Your task to perform on an android device: turn off javascript in the chrome app Image 0: 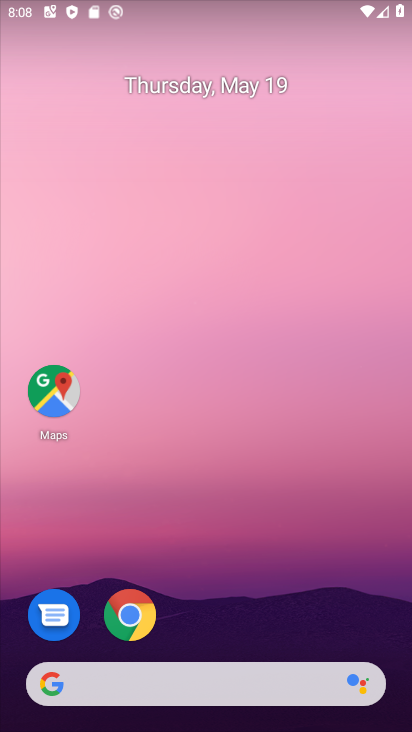
Step 0: drag from (250, 612) to (239, 98)
Your task to perform on an android device: turn off javascript in the chrome app Image 1: 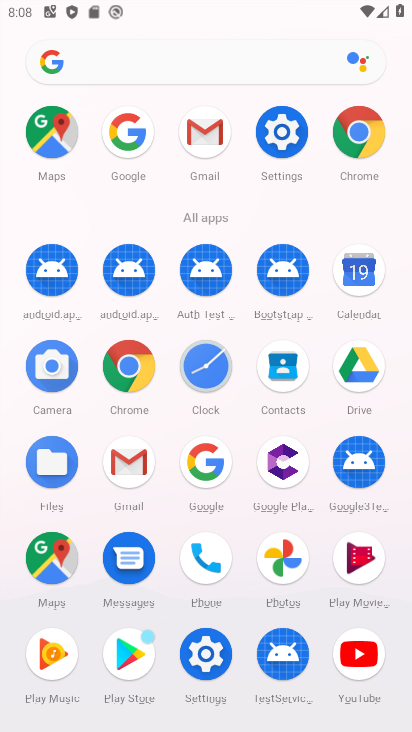
Step 1: click (128, 357)
Your task to perform on an android device: turn off javascript in the chrome app Image 2: 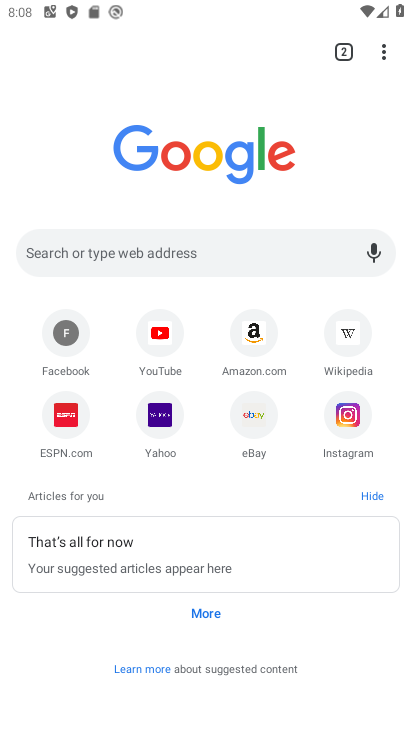
Step 2: click (375, 47)
Your task to perform on an android device: turn off javascript in the chrome app Image 3: 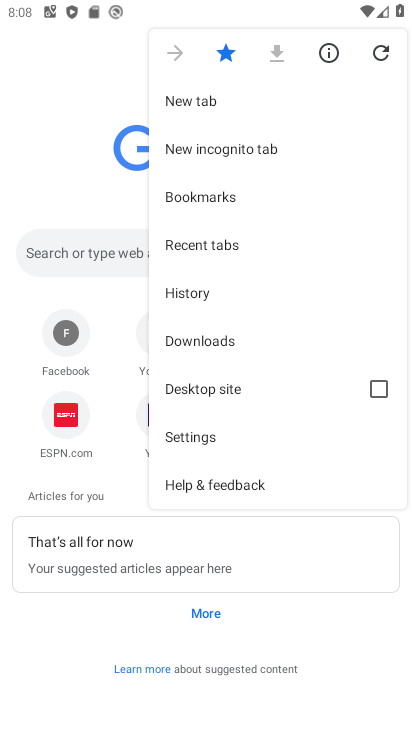
Step 3: click (247, 449)
Your task to perform on an android device: turn off javascript in the chrome app Image 4: 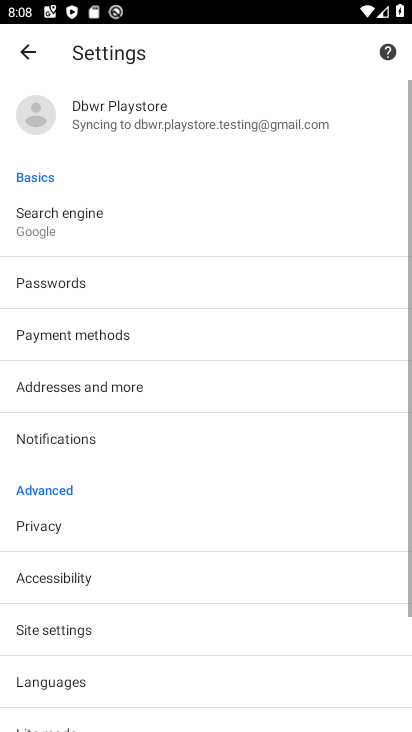
Step 4: drag from (115, 678) to (104, 511)
Your task to perform on an android device: turn off javascript in the chrome app Image 5: 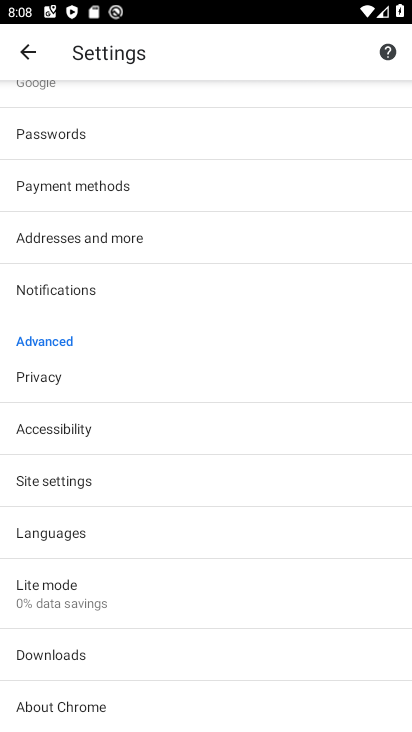
Step 5: click (55, 485)
Your task to perform on an android device: turn off javascript in the chrome app Image 6: 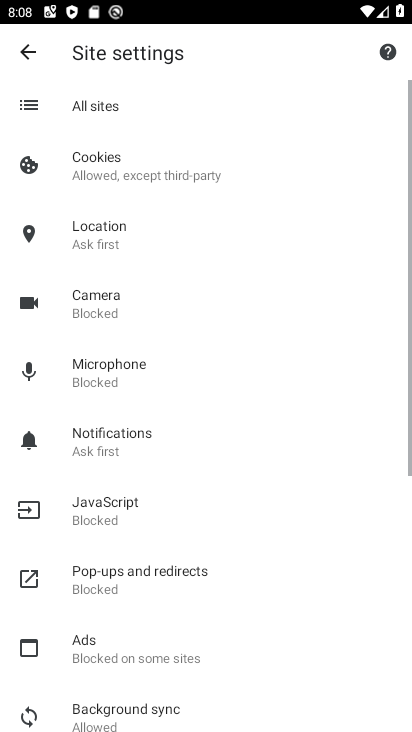
Step 6: click (208, 504)
Your task to perform on an android device: turn off javascript in the chrome app Image 7: 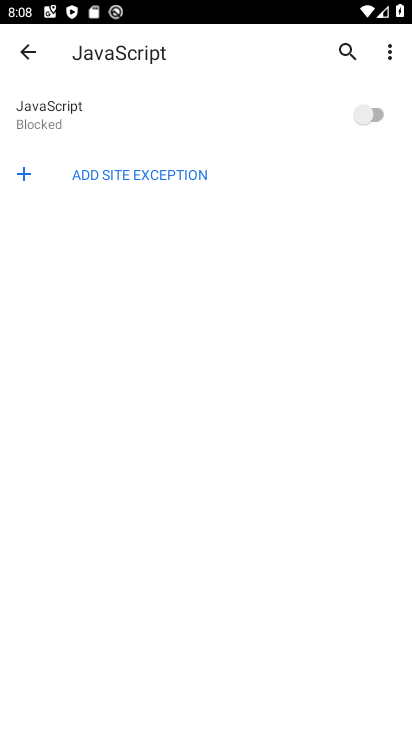
Step 7: task complete